Your task to perform on an android device: Open the Play Movies app and select the watchlist tab. Image 0: 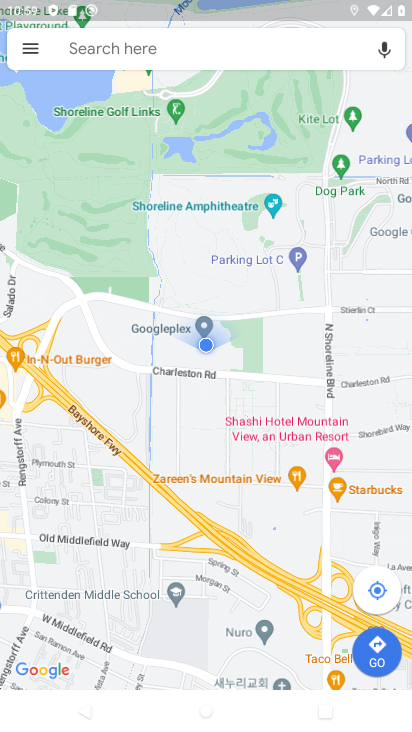
Step 0: press home button
Your task to perform on an android device: Open the Play Movies app and select the watchlist tab. Image 1: 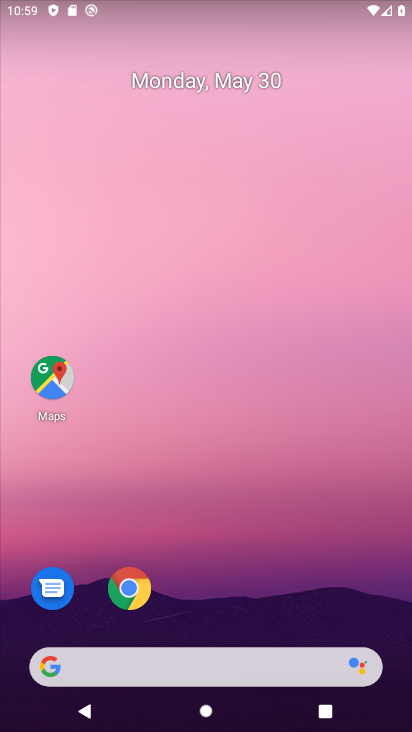
Step 1: drag from (210, 631) to (231, 72)
Your task to perform on an android device: Open the Play Movies app and select the watchlist tab. Image 2: 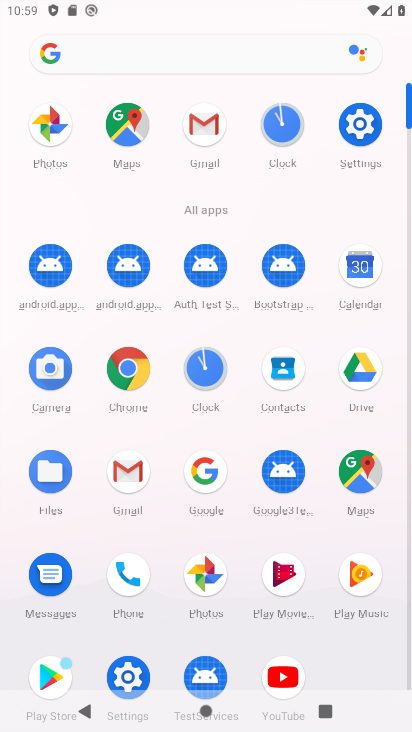
Step 2: click (286, 572)
Your task to perform on an android device: Open the Play Movies app and select the watchlist tab. Image 3: 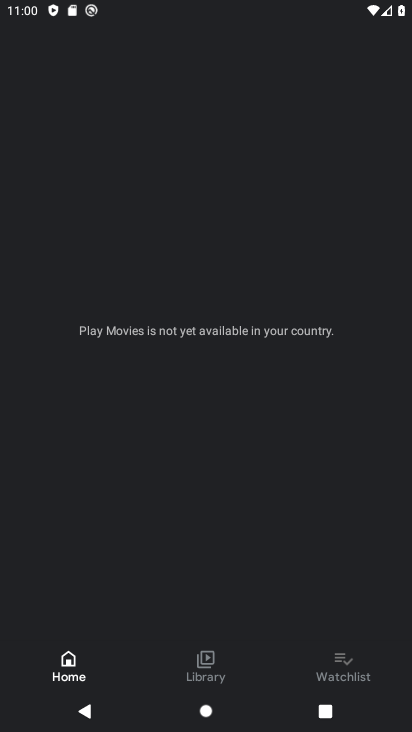
Step 3: click (333, 658)
Your task to perform on an android device: Open the Play Movies app and select the watchlist tab. Image 4: 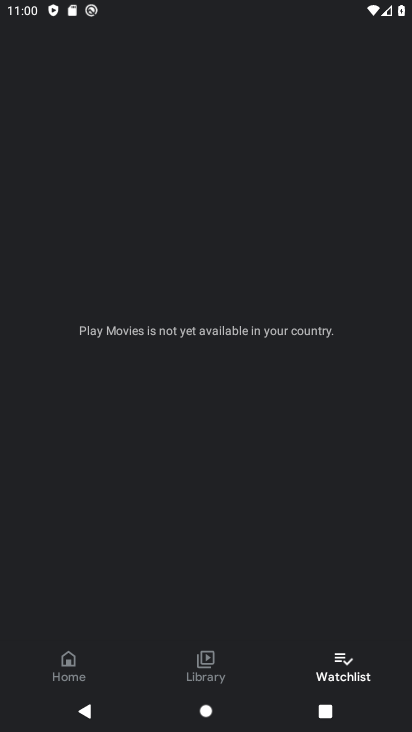
Step 4: task complete